Your task to perform on an android device: toggle translation in the chrome app Image 0: 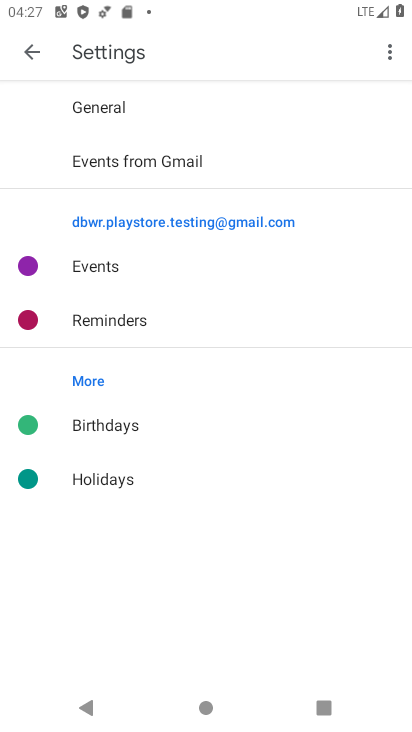
Step 0: press home button
Your task to perform on an android device: toggle translation in the chrome app Image 1: 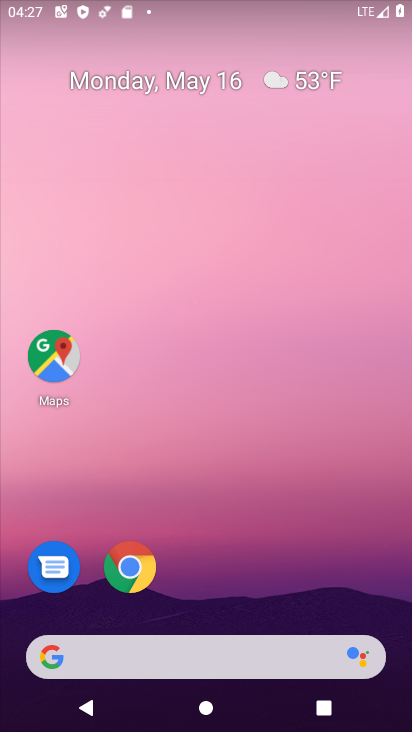
Step 1: drag from (282, 620) to (410, 148)
Your task to perform on an android device: toggle translation in the chrome app Image 2: 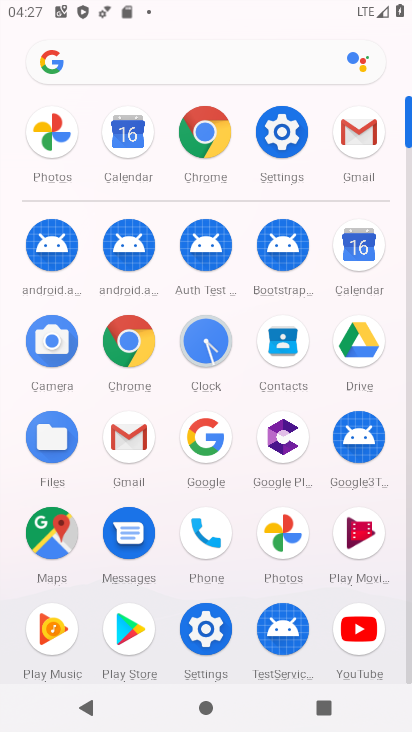
Step 2: click (133, 350)
Your task to perform on an android device: toggle translation in the chrome app Image 3: 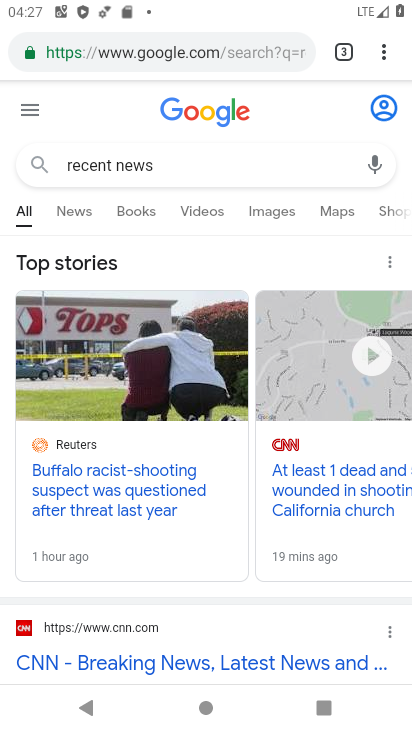
Step 3: click (376, 44)
Your task to perform on an android device: toggle translation in the chrome app Image 4: 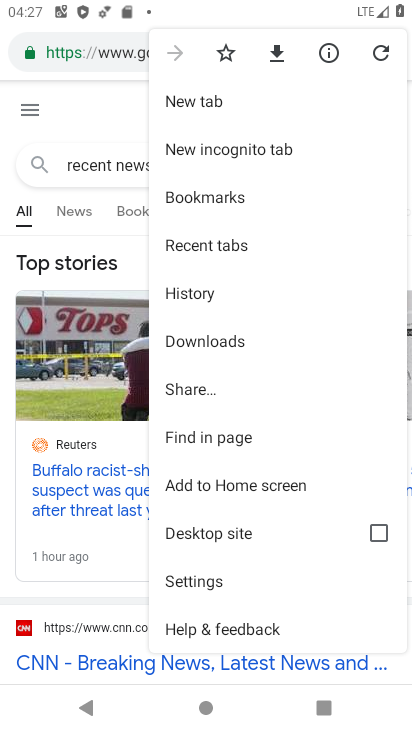
Step 4: click (232, 581)
Your task to perform on an android device: toggle translation in the chrome app Image 5: 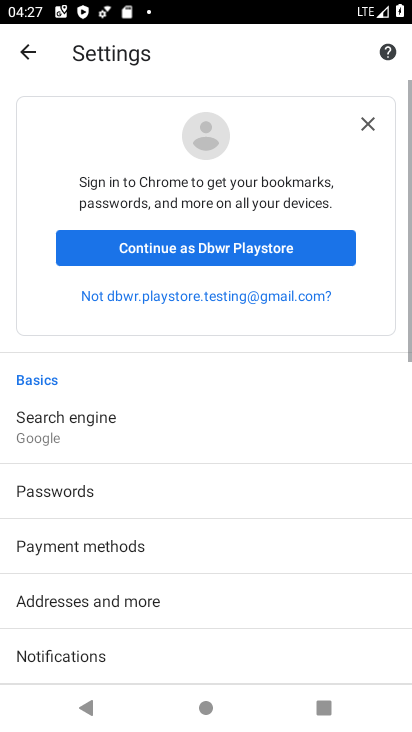
Step 5: drag from (133, 615) to (97, 111)
Your task to perform on an android device: toggle translation in the chrome app Image 6: 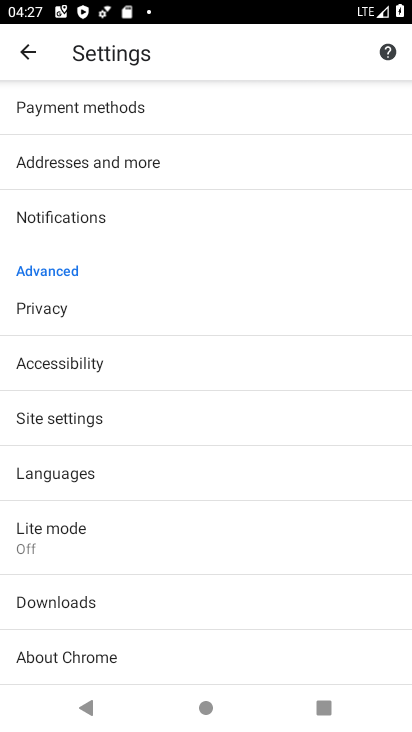
Step 6: click (95, 465)
Your task to perform on an android device: toggle translation in the chrome app Image 7: 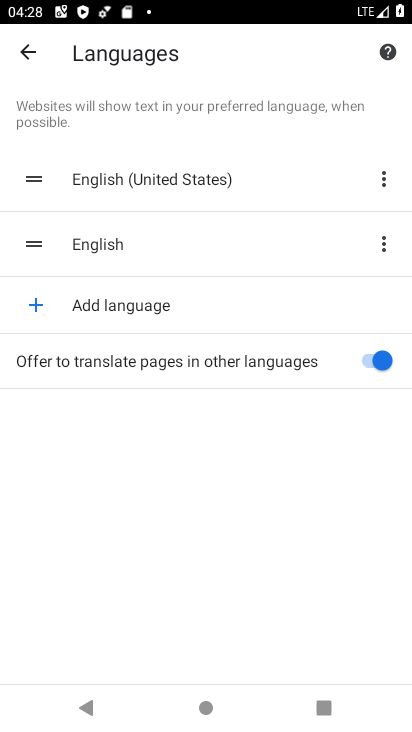
Step 7: click (372, 354)
Your task to perform on an android device: toggle translation in the chrome app Image 8: 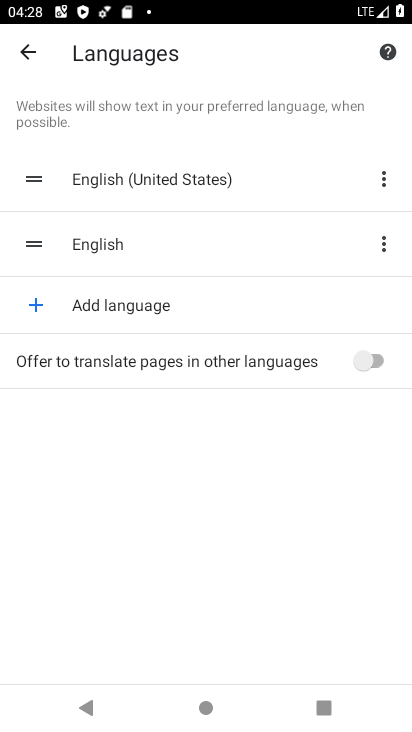
Step 8: task complete